Your task to perform on an android device: change the clock display to analog Image 0: 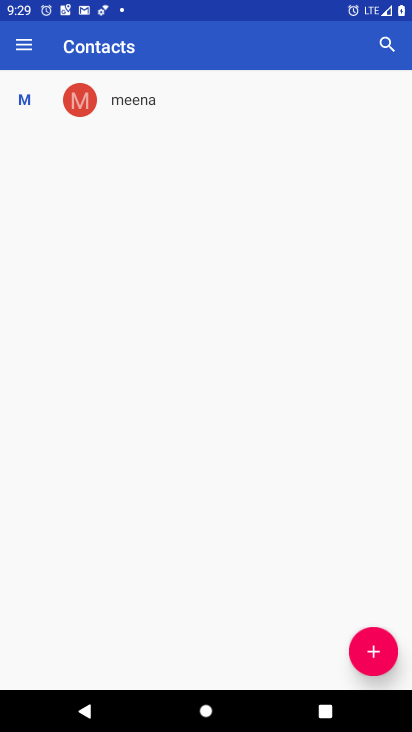
Step 0: press home button
Your task to perform on an android device: change the clock display to analog Image 1: 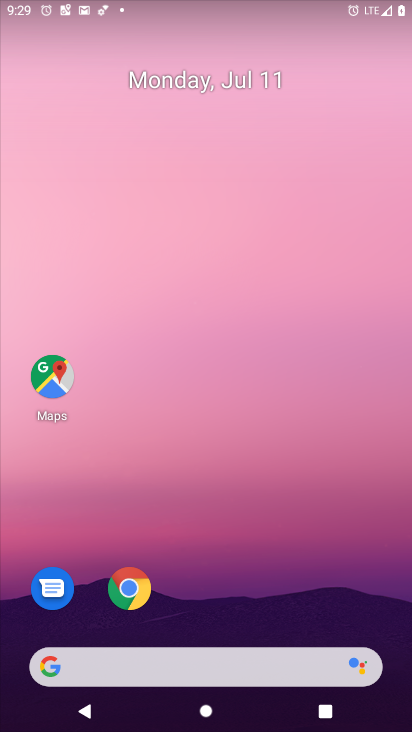
Step 1: drag from (173, 673) to (287, 154)
Your task to perform on an android device: change the clock display to analog Image 2: 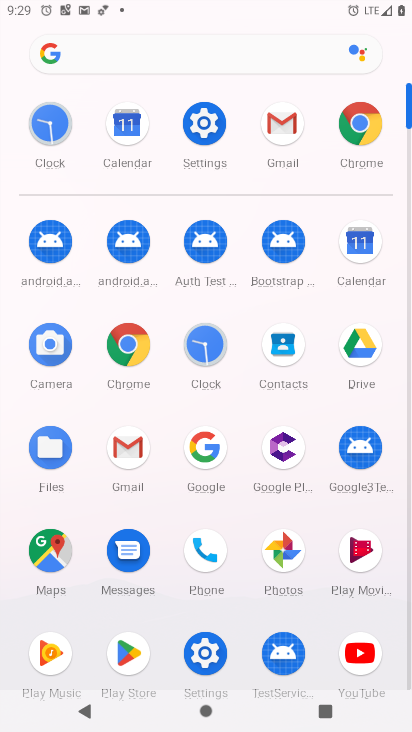
Step 2: click (202, 347)
Your task to perform on an android device: change the clock display to analog Image 3: 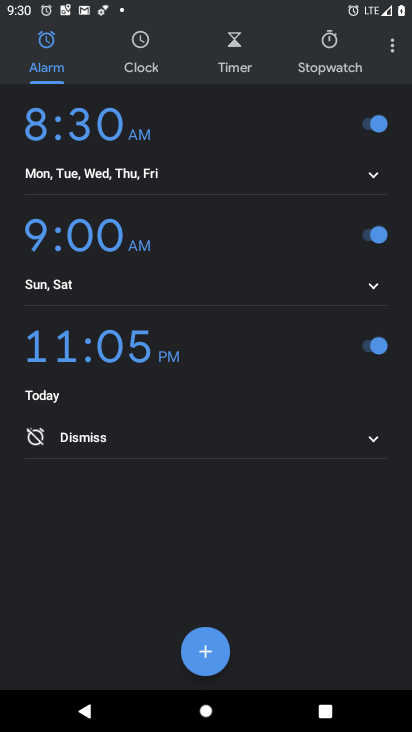
Step 3: click (397, 37)
Your task to perform on an android device: change the clock display to analog Image 4: 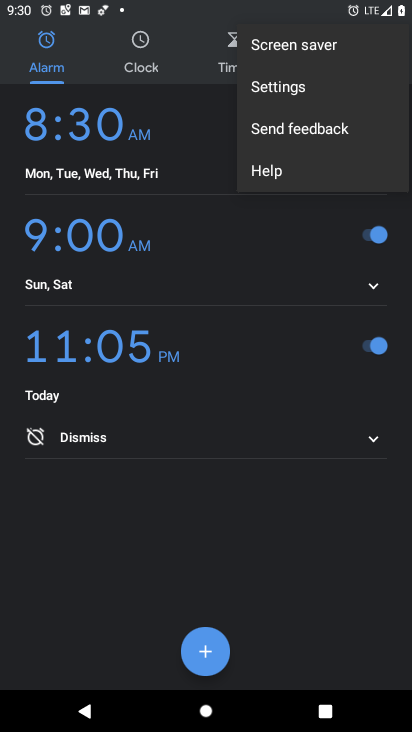
Step 4: click (302, 84)
Your task to perform on an android device: change the clock display to analog Image 5: 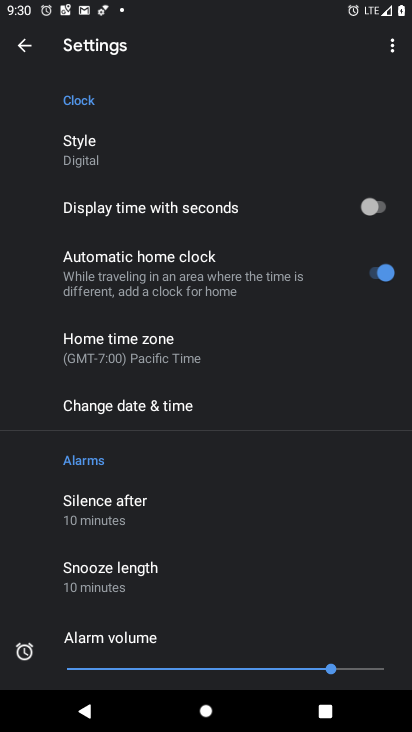
Step 5: click (94, 151)
Your task to perform on an android device: change the clock display to analog Image 6: 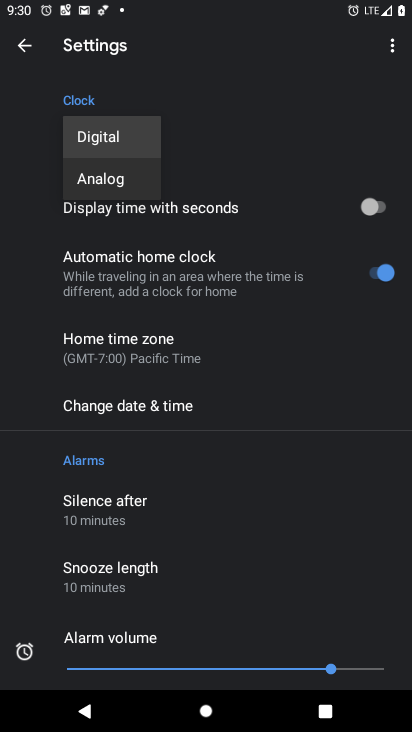
Step 6: click (100, 168)
Your task to perform on an android device: change the clock display to analog Image 7: 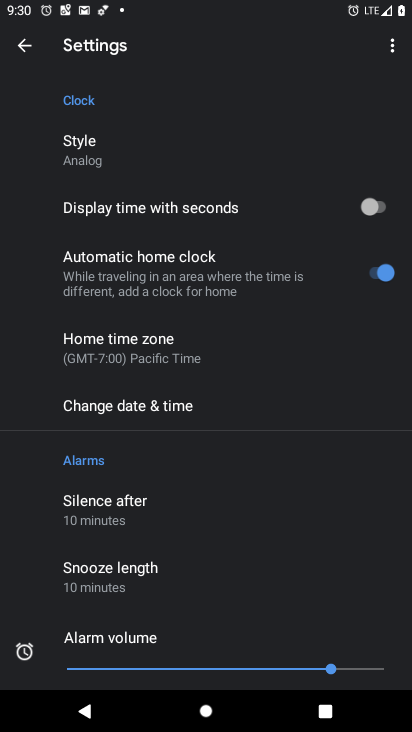
Step 7: task complete